Your task to perform on an android device: toggle show notifications on the lock screen Image 0: 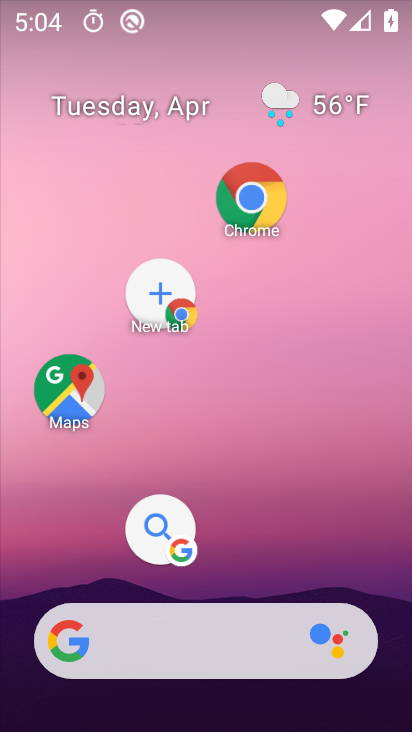
Step 0: drag from (244, 602) to (293, 201)
Your task to perform on an android device: toggle show notifications on the lock screen Image 1: 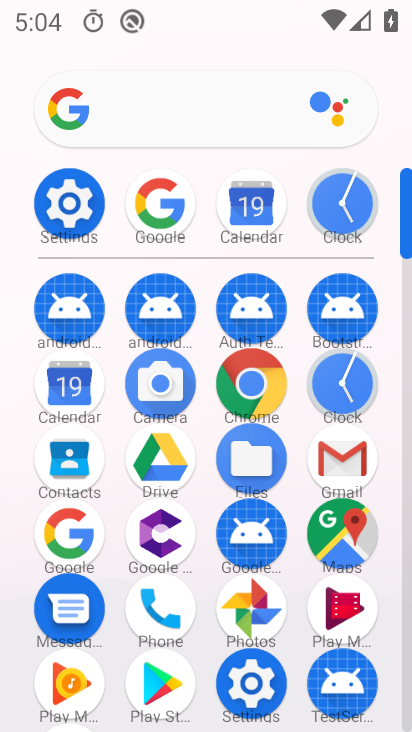
Step 1: click (63, 198)
Your task to perform on an android device: toggle show notifications on the lock screen Image 2: 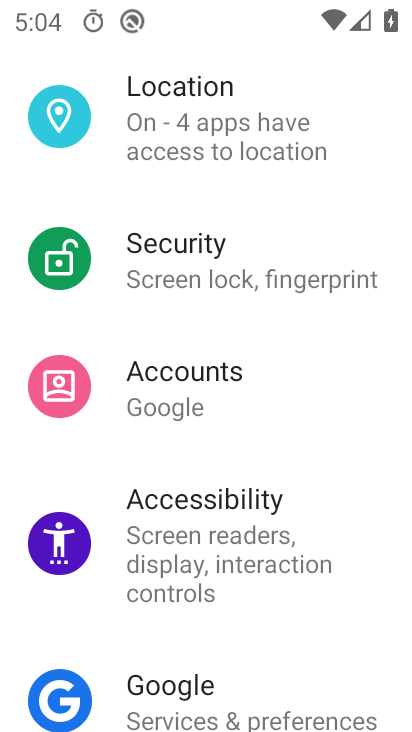
Step 2: drag from (216, 134) to (208, 593)
Your task to perform on an android device: toggle show notifications on the lock screen Image 3: 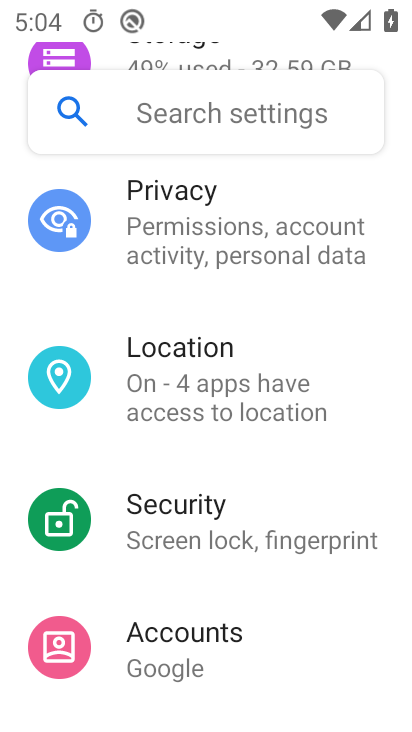
Step 3: click (169, 222)
Your task to perform on an android device: toggle show notifications on the lock screen Image 4: 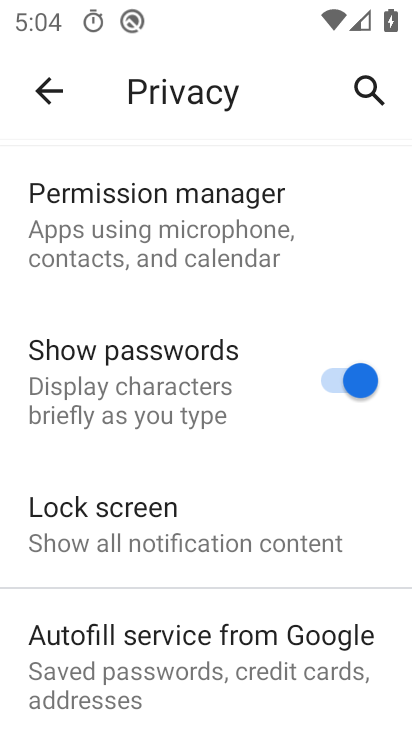
Step 4: click (146, 529)
Your task to perform on an android device: toggle show notifications on the lock screen Image 5: 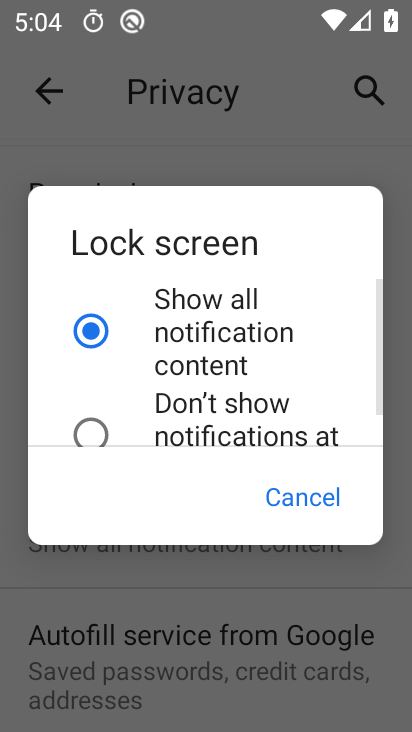
Step 5: click (86, 439)
Your task to perform on an android device: toggle show notifications on the lock screen Image 6: 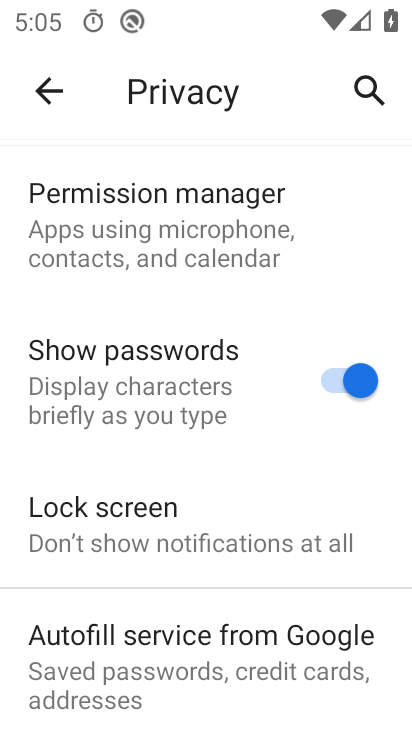
Step 6: task complete